Your task to perform on an android device: Go to location settings Image 0: 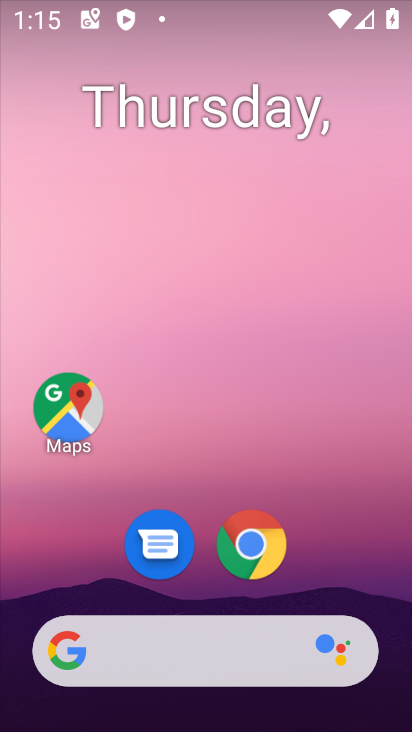
Step 0: drag from (208, 724) to (208, 90)
Your task to perform on an android device: Go to location settings Image 1: 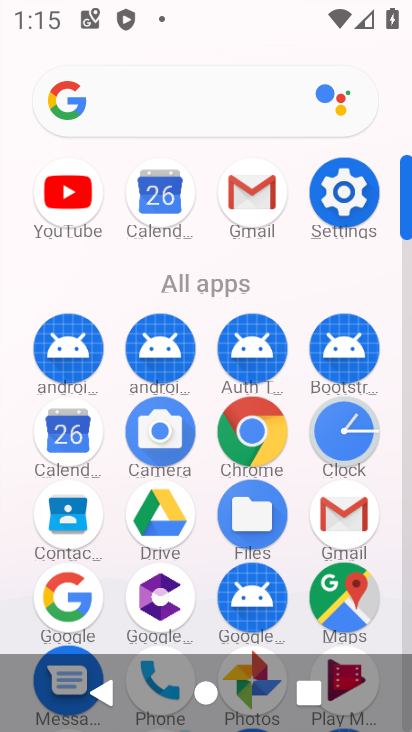
Step 1: click (348, 191)
Your task to perform on an android device: Go to location settings Image 2: 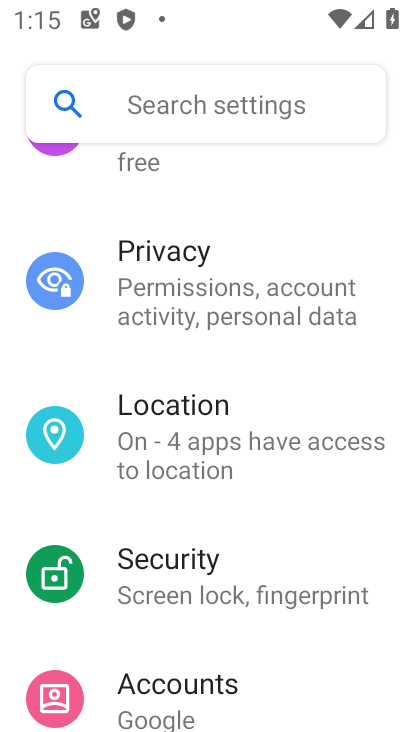
Step 2: click (189, 443)
Your task to perform on an android device: Go to location settings Image 3: 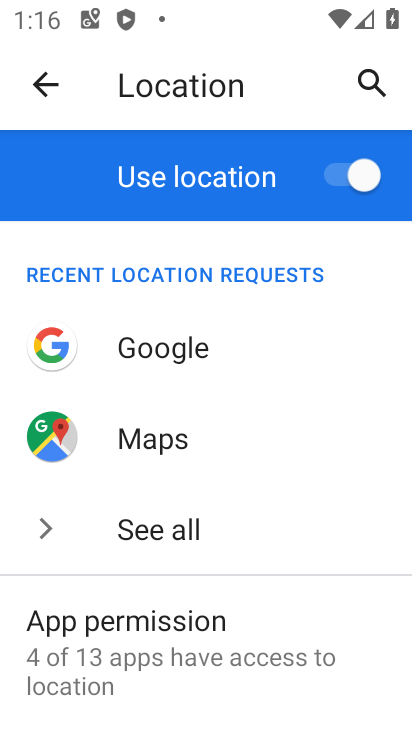
Step 3: task complete